Your task to perform on an android device: add a contact in the contacts app Image 0: 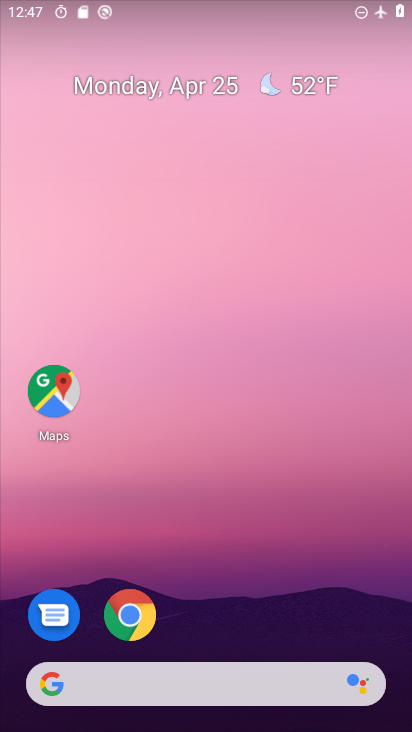
Step 0: drag from (194, 654) to (166, 55)
Your task to perform on an android device: add a contact in the contacts app Image 1: 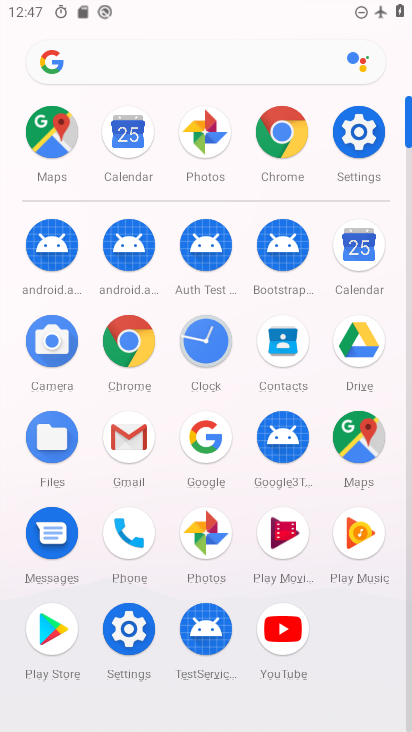
Step 1: click (119, 534)
Your task to perform on an android device: add a contact in the contacts app Image 2: 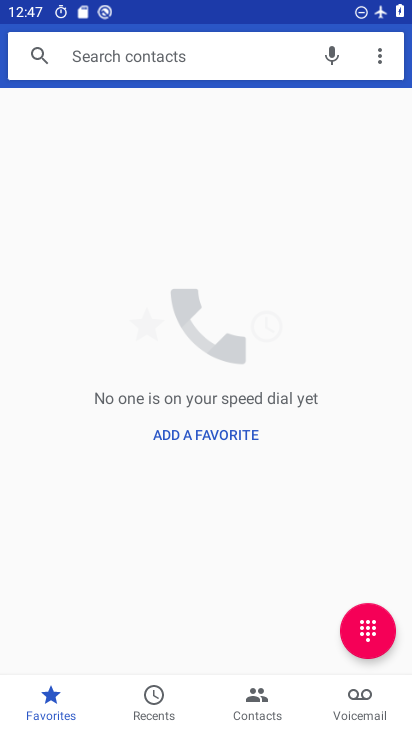
Step 2: click (259, 686)
Your task to perform on an android device: add a contact in the contacts app Image 3: 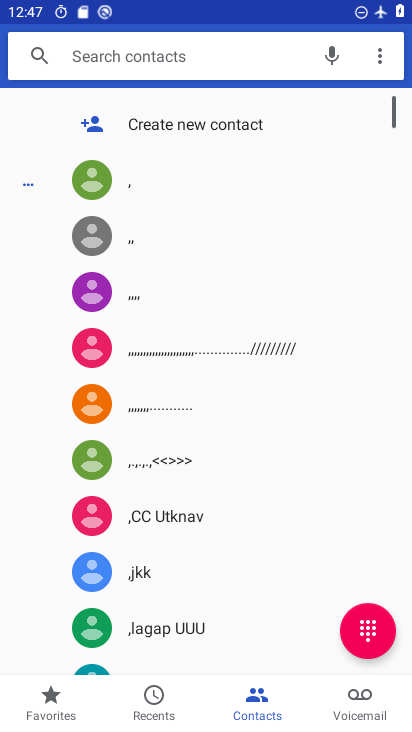
Step 3: click (199, 120)
Your task to perform on an android device: add a contact in the contacts app Image 4: 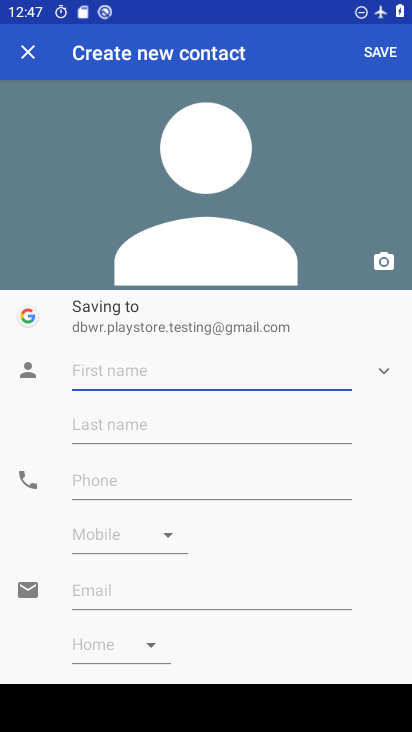
Step 4: type "bv"
Your task to perform on an android device: add a contact in the contacts app Image 5: 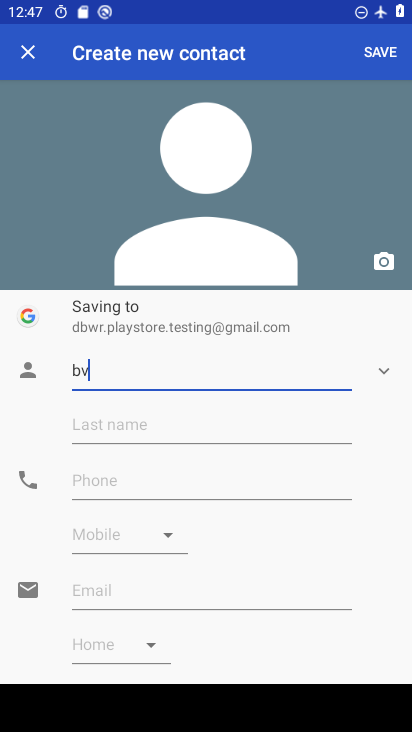
Step 5: click (136, 485)
Your task to perform on an android device: add a contact in the contacts app Image 6: 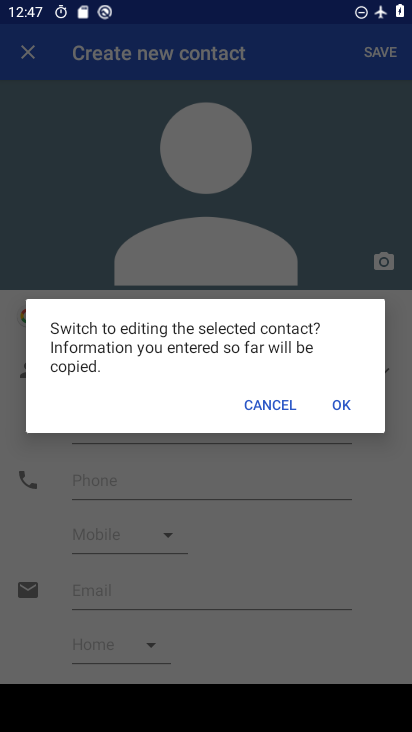
Step 6: click (328, 409)
Your task to perform on an android device: add a contact in the contacts app Image 7: 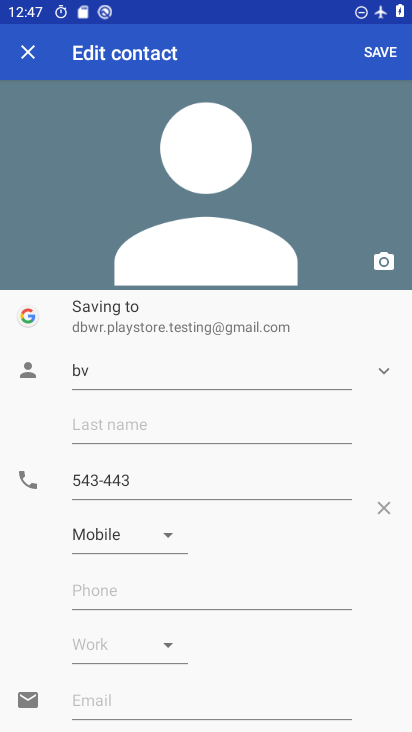
Step 7: click (365, 52)
Your task to perform on an android device: add a contact in the contacts app Image 8: 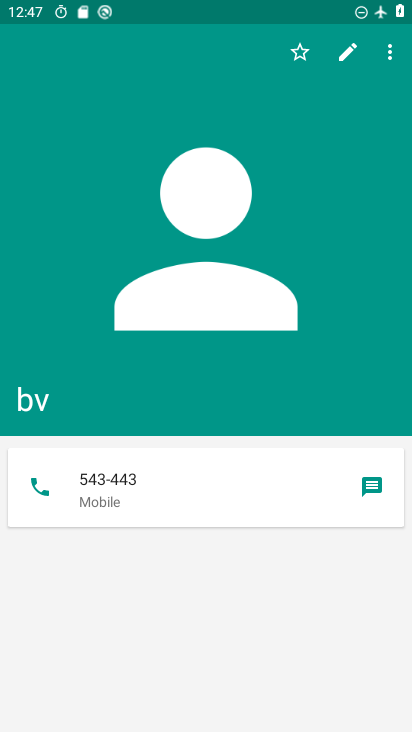
Step 8: task complete